Your task to perform on an android device: Open battery settings Image 0: 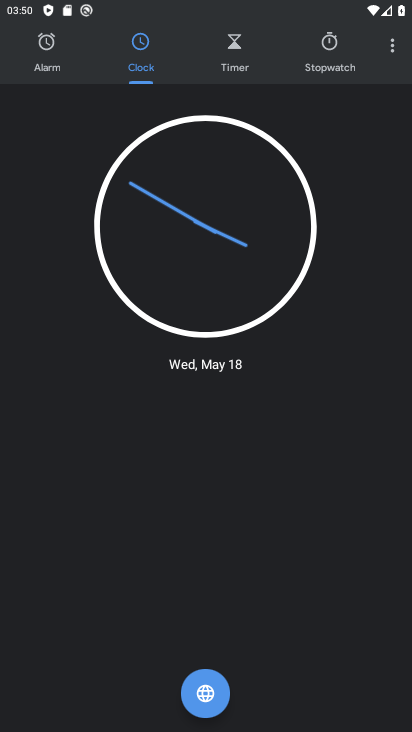
Step 0: press home button
Your task to perform on an android device: Open battery settings Image 1: 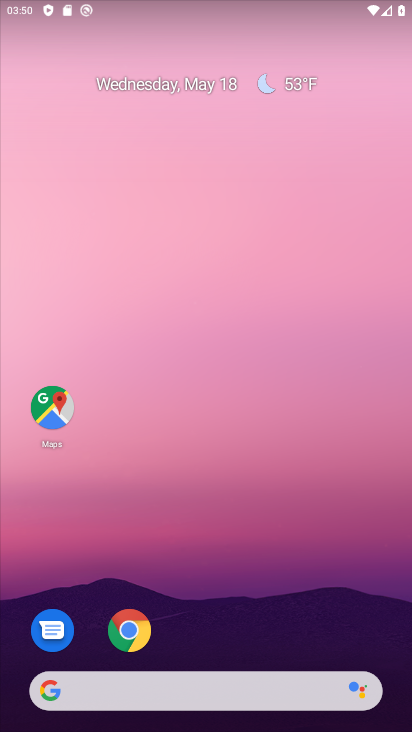
Step 1: drag from (193, 726) to (193, 152)
Your task to perform on an android device: Open battery settings Image 2: 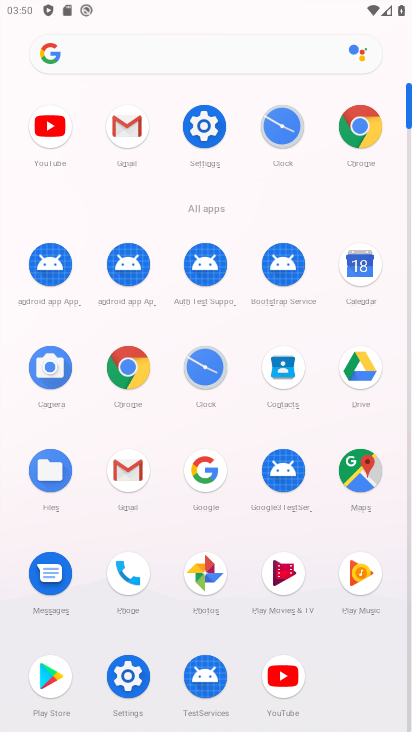
Step 2: click (201, 127)
Your task to perform on an android device: Open battery settings Image 3: 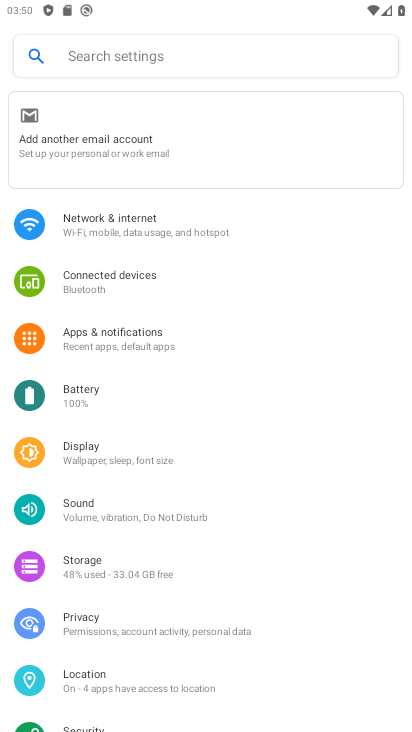
Step 3: click (80, 387)
Your task to perform on an android device: Open battery settings Image 4: 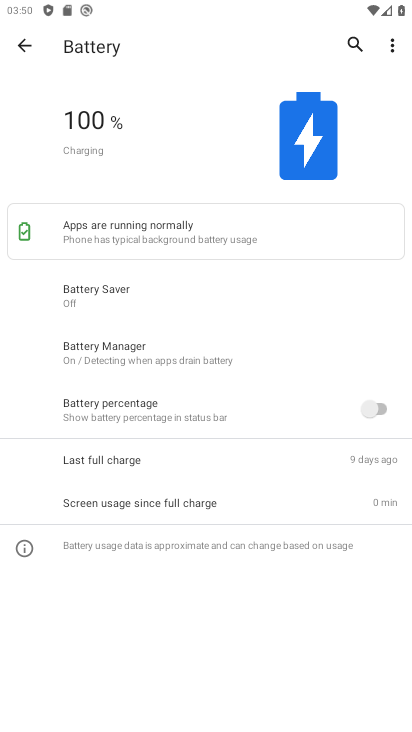
Step 4: task complete